Your task to perform on an android device: open chrome and create a bookmark for the current page Image 0: 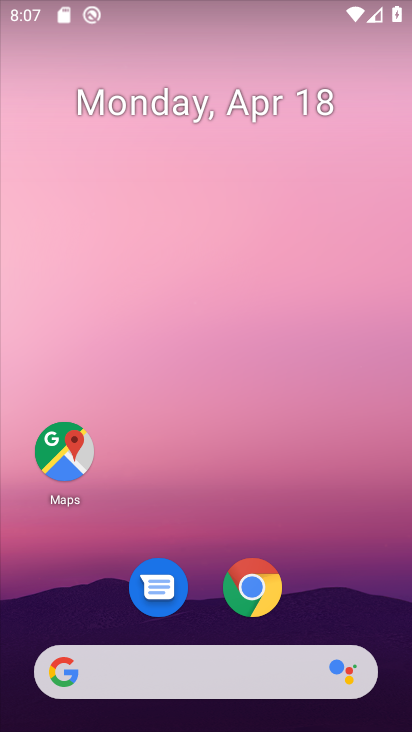
Step 0: click (248, 594)
Your task to perform on an android device: open chrome and create a bookmark for the current page Image 1: 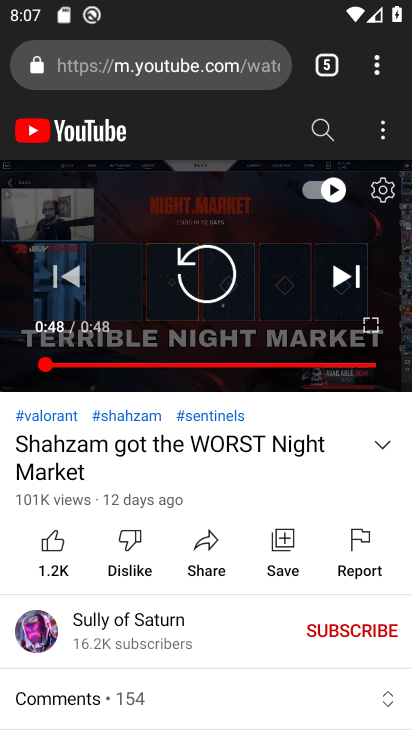
Step 1: click (382, 67)
Your task to perform on an android device: open chrome and create a bookmark for the current page Image 2: 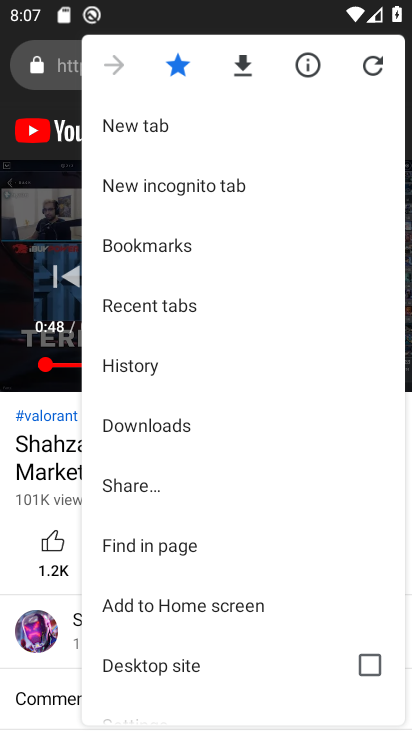
Step 2: task complete